Your task to perform on an android device: add a contact in the contacts app Image 0: 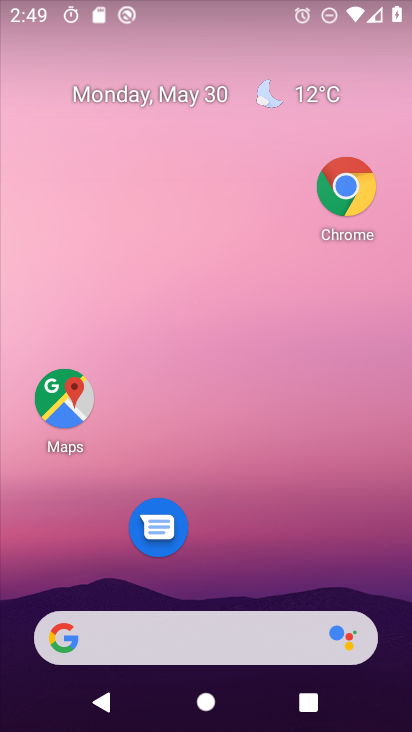
Step 0: drag from (227, 540) to (282, 128)
Your task to perform on an android device: add a contact in the contacts app Image 1: 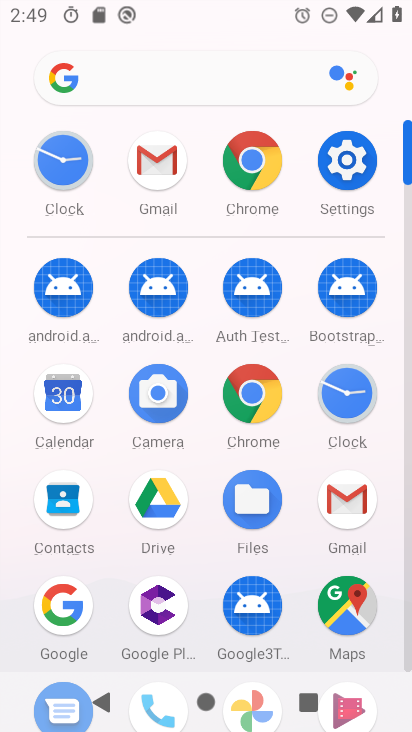
Step 1: click (67, 534)
Your task to perform on an android device: add a contact in the contacts app Image 2: 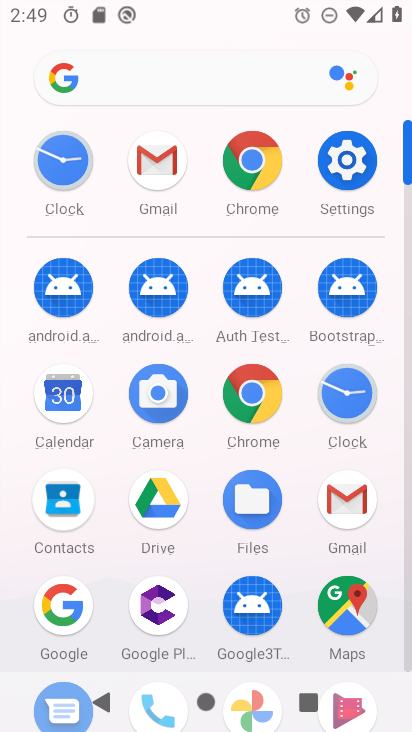
Step 2: click (72, 511)
Your task to perform on an android device: add a contact in the contacts app Image 3: 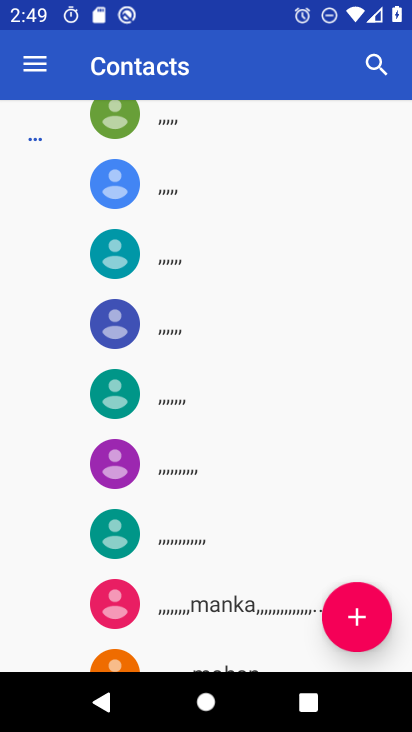
Step 3: click (383, 628)
Your task to perform on an android device: add a contact in the contacts app Image 4: 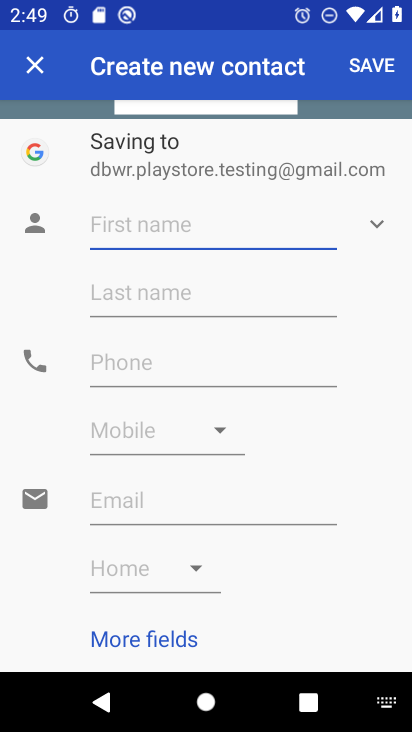
Step 4: type "masl"
Your task to perform on an android device: add a contact in the contacts app Image 5: 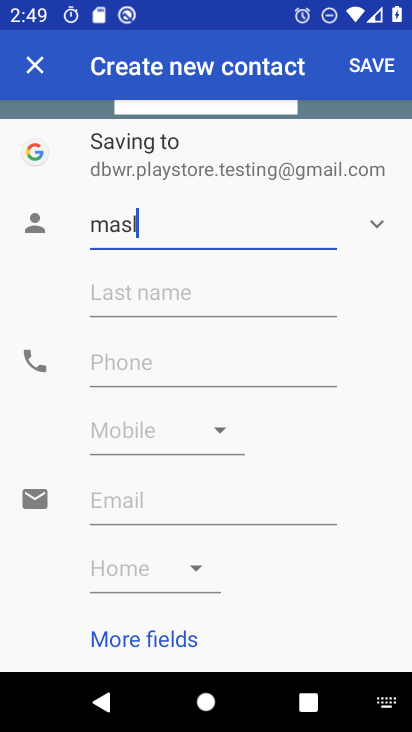
Step 5: click (372, 71)
Your task to perform on an android device: add a contact in the contacts app Image 6: 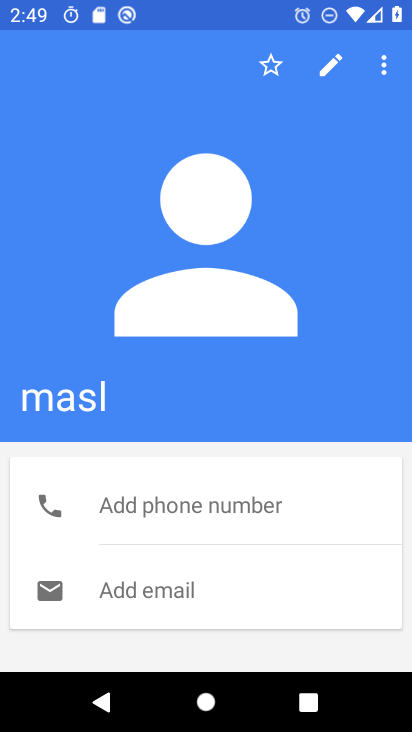
Step 6: task complete